Your task to perform on an android device: Open Google Image 0: 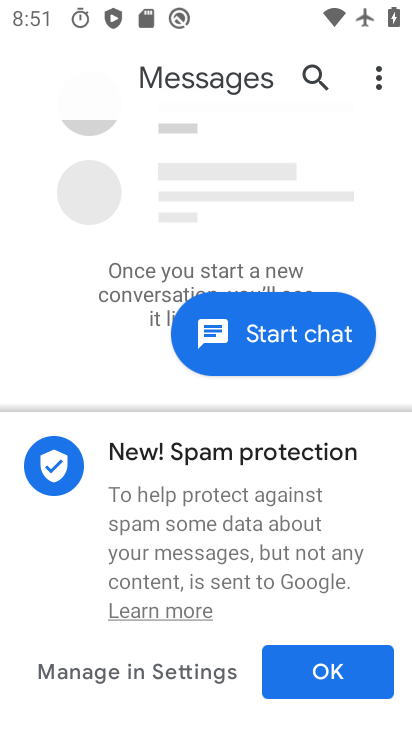
Step 0: press home button
Your task to perform on an android device: Open Google Image 1: 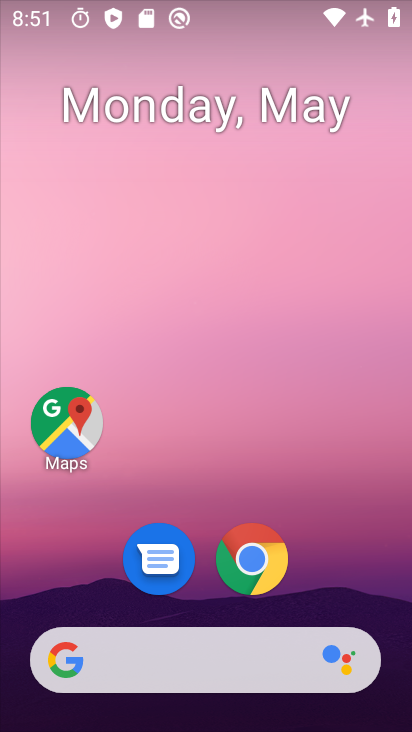
Step 1: drag from (362, 570) to (359, 149)
Your task to perform on an android device: Open Google Image 2: 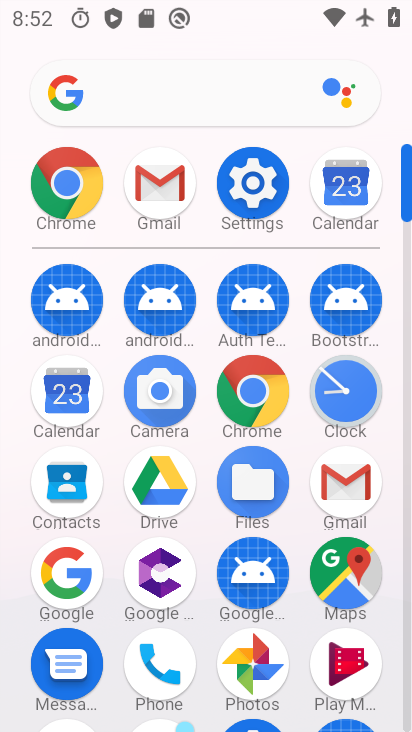
Step 2: click (79, 572)
Your task to perform on an android device: Open Google Image 3: 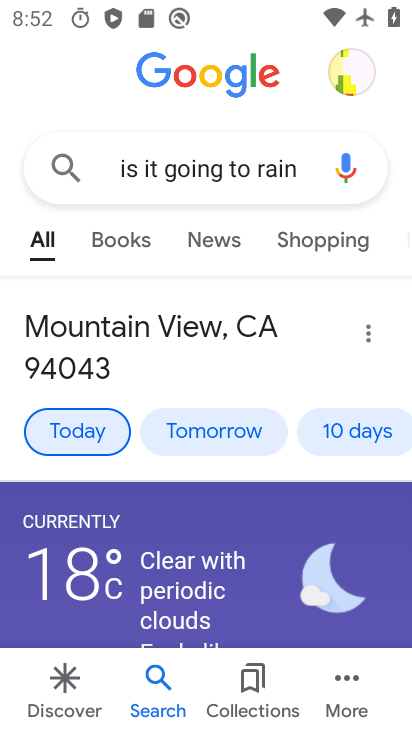
Step 3: task complete